Your task to perform on an android device: turn on translation in the chrome app Image 0: 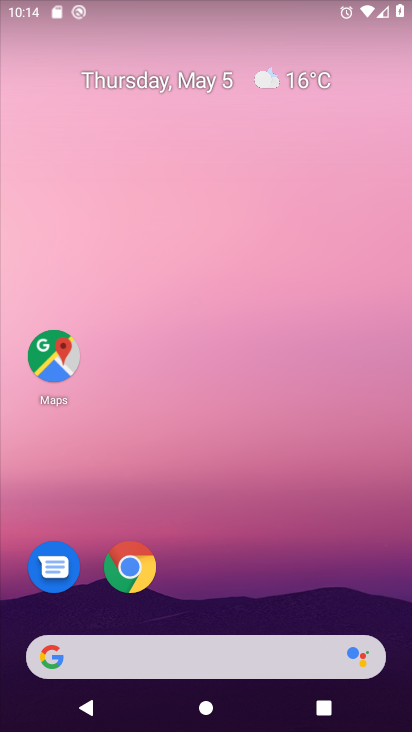
Step 0: drag from (272, 521) to (284, 36)
Your task to perform on an android device: turn on translation in the chrome app Image 1: 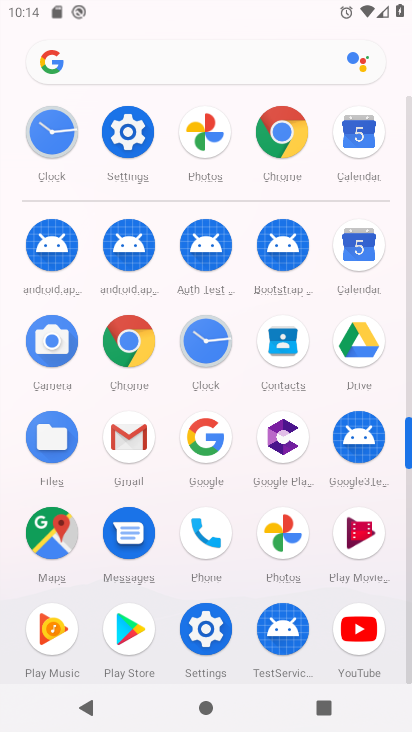
Step 1: click (273, 132)
Your task to perform on an android device: turn on translation in the chrome app Image 2: 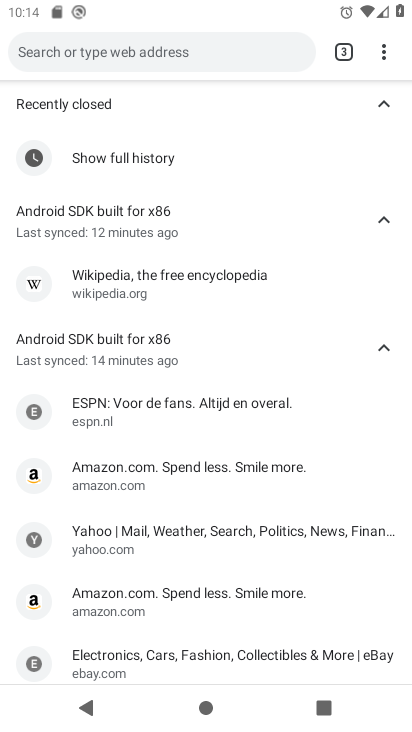
Step 2: drag from (380, 56) to (262, 423)
Your task to perform on an android device: turn on translation in the chrome app Image 3: 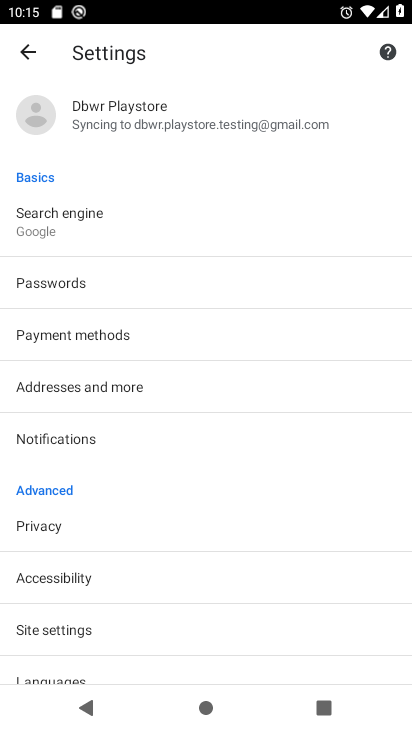
Step 3: drag from (233, 622) to (295, 384)
Your task to perform on an android device: turn on translation in the chrome app Image 4: 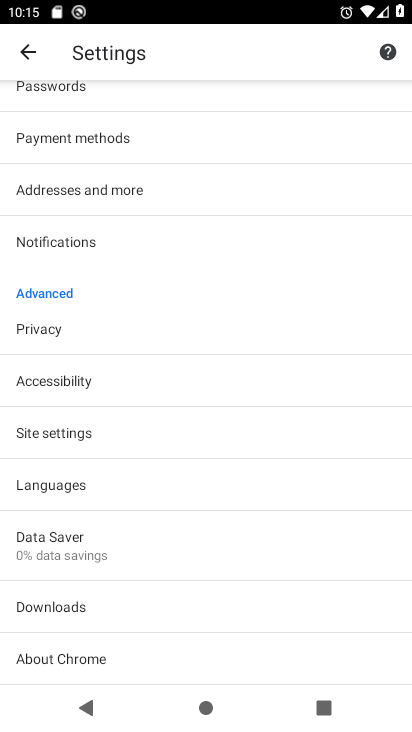
Step 4: click (247, 477)
Your task to perform on an android device: turn on translation in the chrome app Image 5: 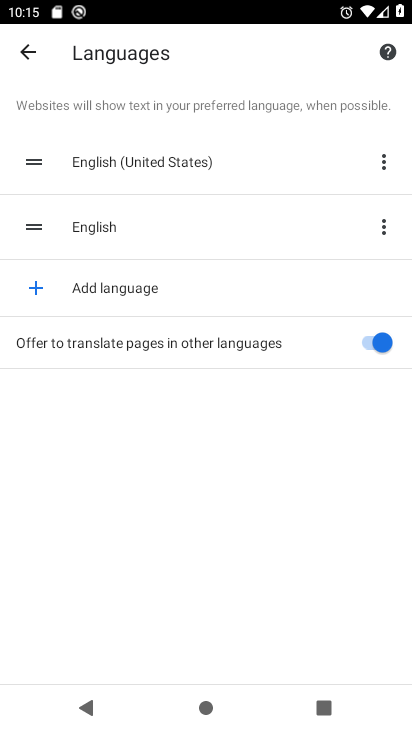
Step 5: task complete